Your task to perform on an android device: Show the shopping cart on costco. Image 0: 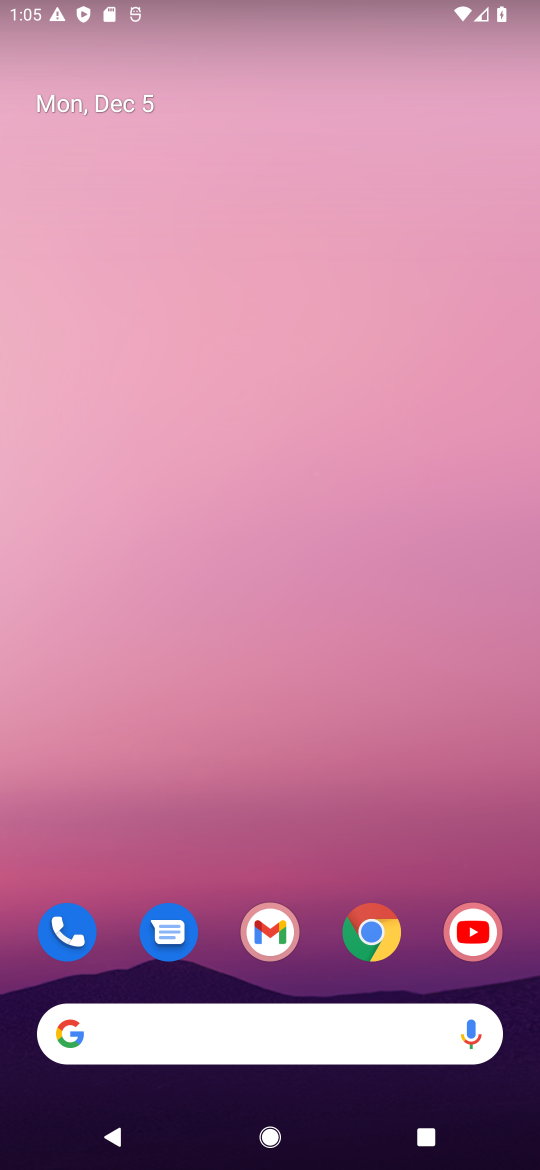
Step 0: click (366, 934)
Your task to perform on an android device: Show the shopping cart on costco. Image 1: 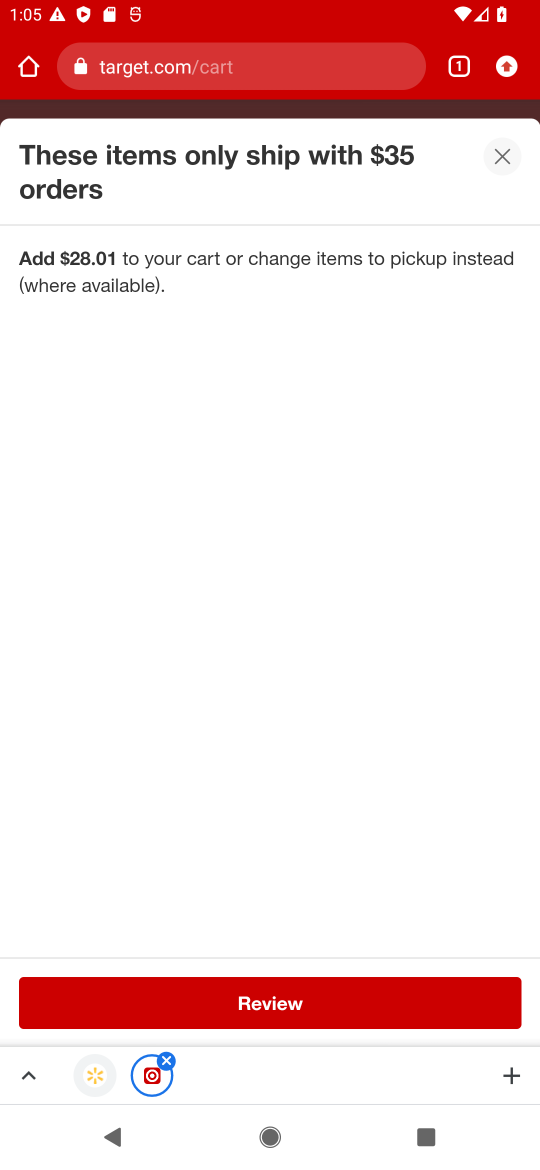
Step 1: click (254, 64)
Your task to perform on an android device: Show the shopping cart on costco. Image 2: 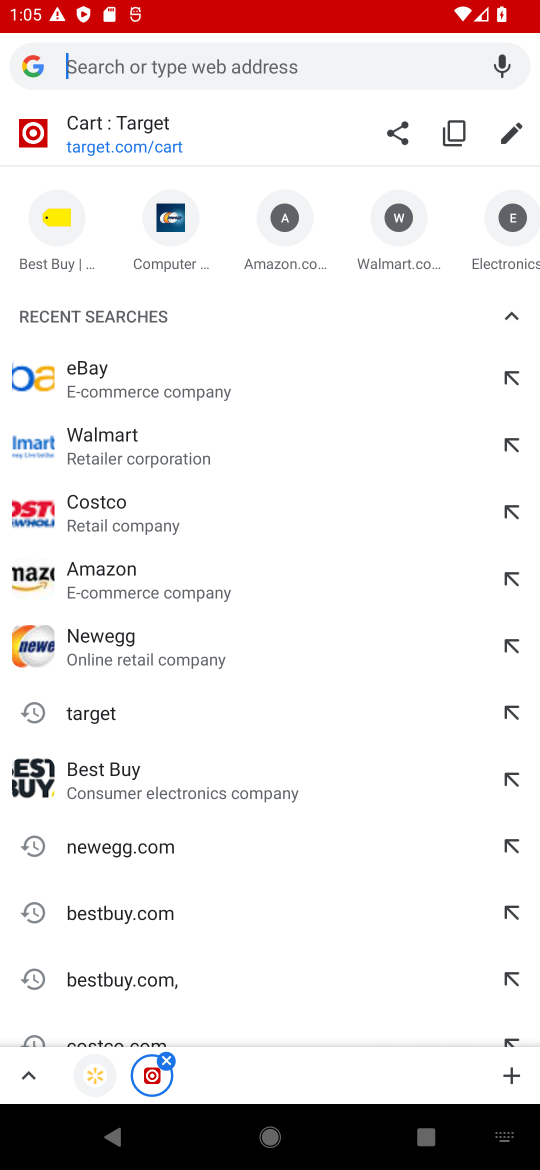
Step 2: click (174, 520)
Your task to perform on an android device: Show the shopping cart on costco. Image 3: 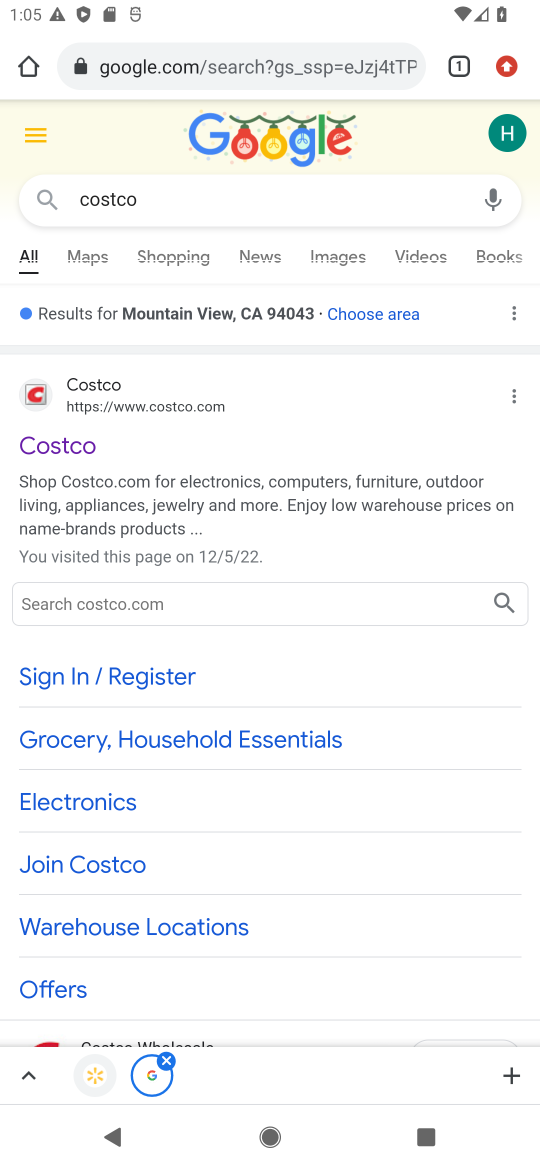
Step 3: click (57, 449)
Your task to perform on an android device: Show the shopping cart on costco. Image 4: 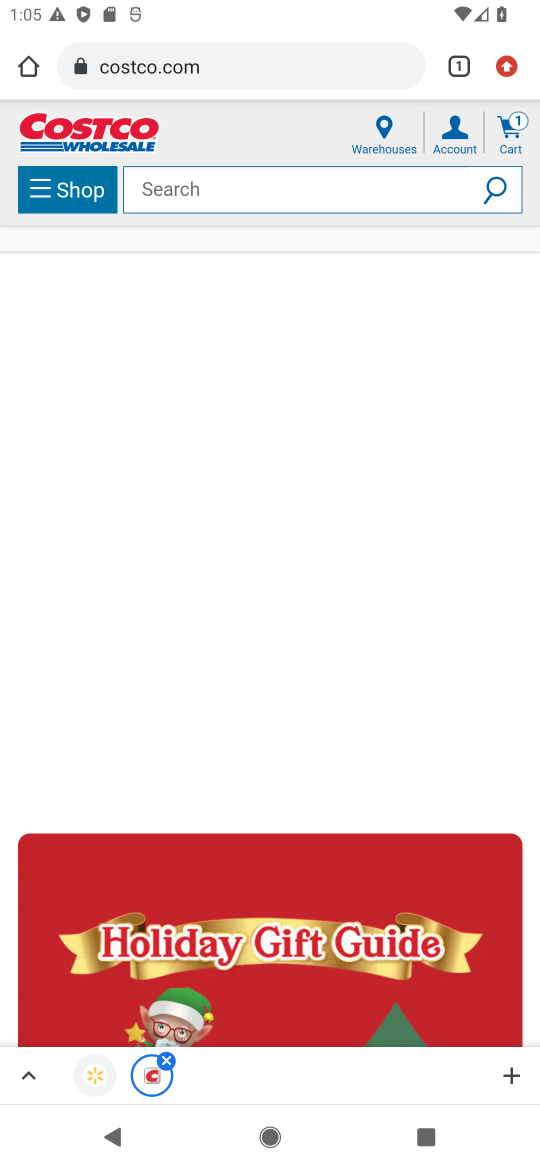
Step 4: click (511, 122)
Your task to perform on an android device: Show the shopping cart on costco. Image 5: 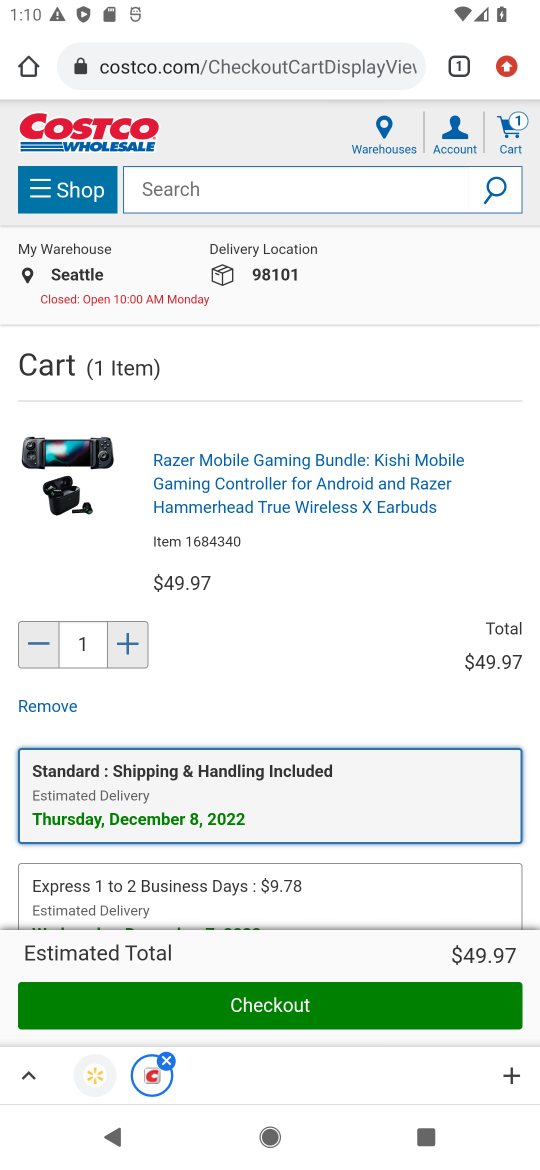
Step 5: task complete